Your task to perform on an android device: Open ESPN.com Image 0: 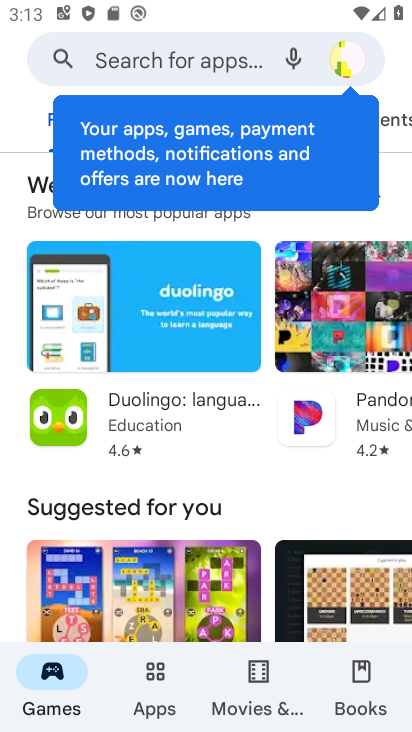
Step 0: press home button
Your task to perform on an android device: Open ESPN.com Image 1: 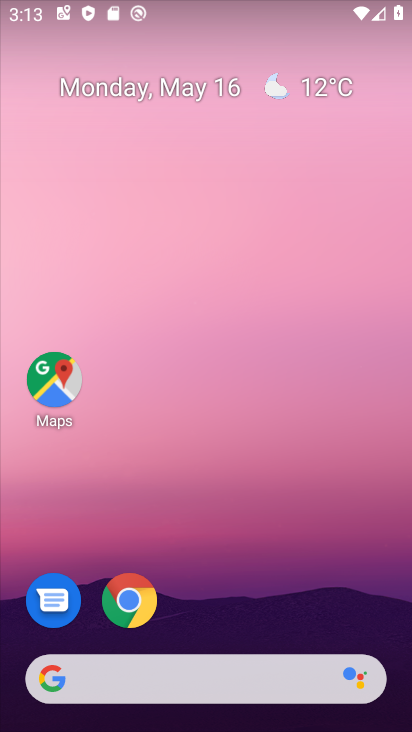
Step 1: click (160, 599)
Your task to perform on an android device: Open ESPN.com Image 2: 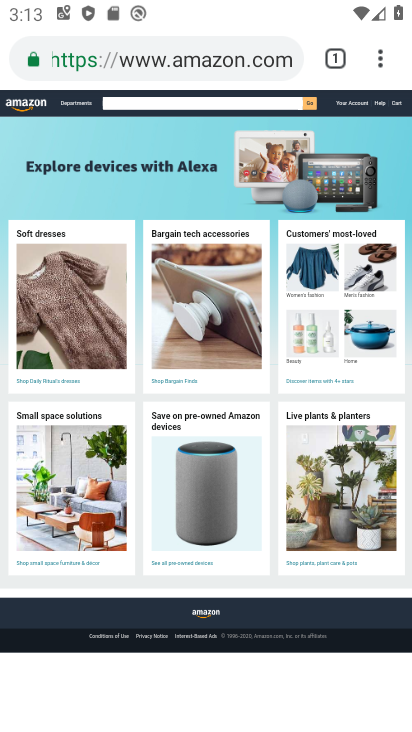
Step 2: click (331, 63)
Your task to perform on an android device: Open ESPN.com Image 3: 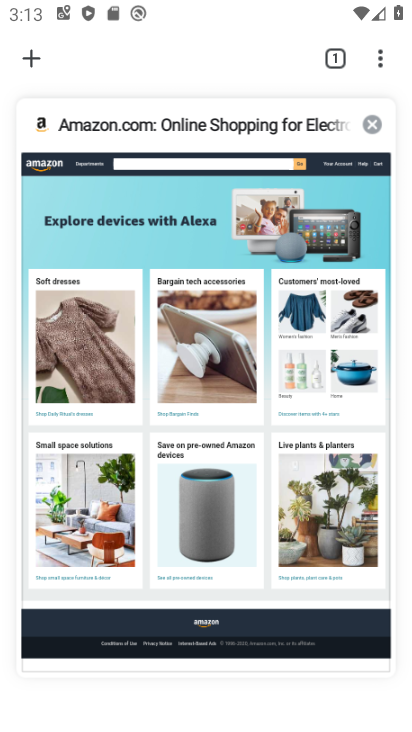
Step 3: click (11, 57)
Your task to perform on an android device: Open ESPN.com Image 4: 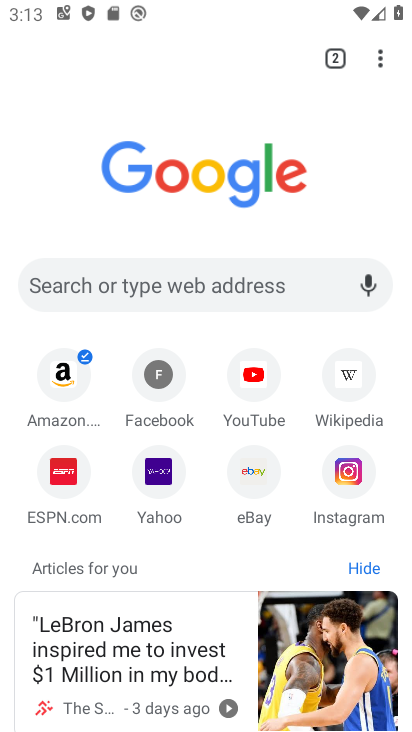
Step 4: click (78, 473)
Your task to perform on an android device: Open ESPN.com Image 5: 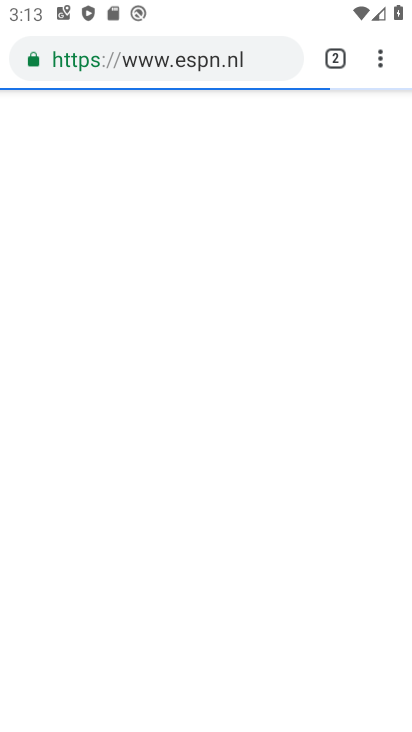
Step 5: task complete